Your task to perform on an android device: Open Android settings Image 0: 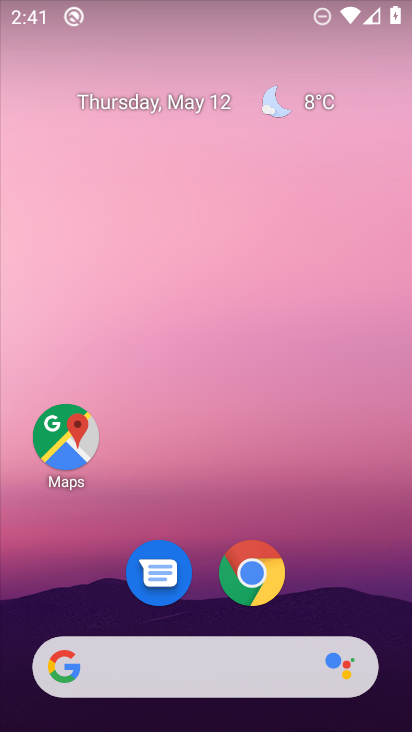
Step 0: drag from (366, 582) to (88, 17)
Your task to perform on an android device: Open Android settings Image 1: 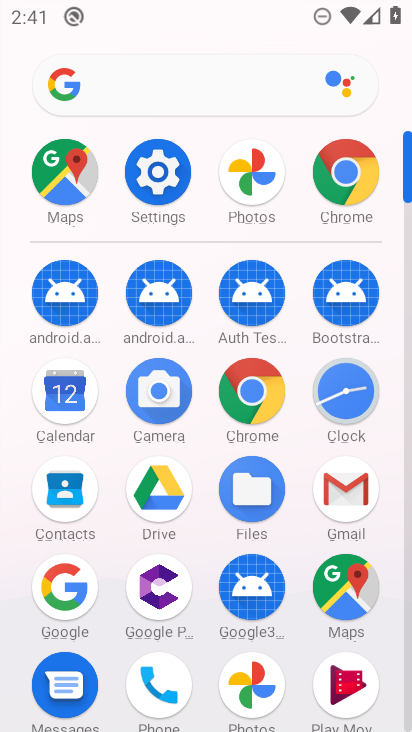
Step 1: click (344, 181)
Your task to perform on an android device: Open Android settings Image 2: 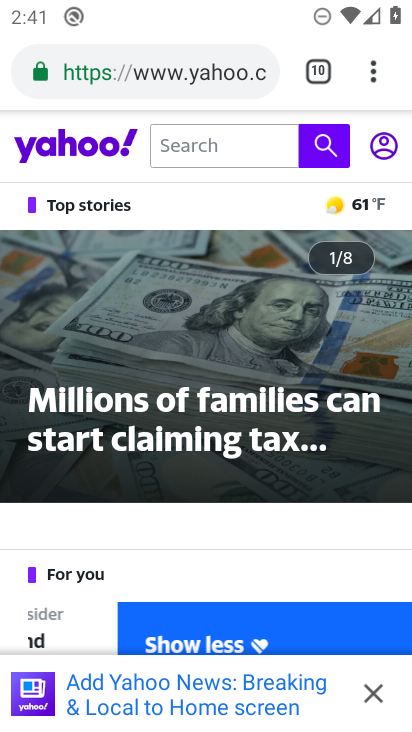
Step 2: press back button
Your task to perform on an android device: Open Android settings Image 3: 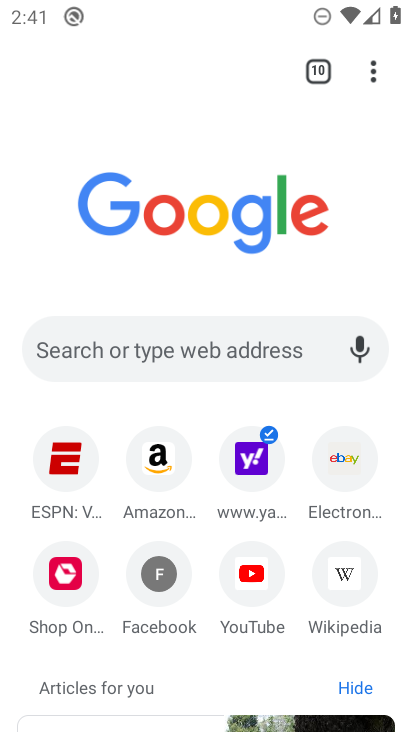
Step 3: press home button
Your task to perform on an android device: Open Android settings Image 4: 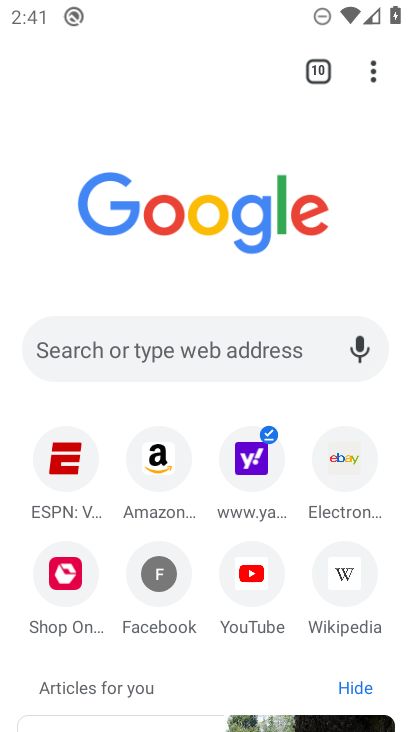
Step 4: press home button
Your task to perform on an android device: Open Android settings Image 5: 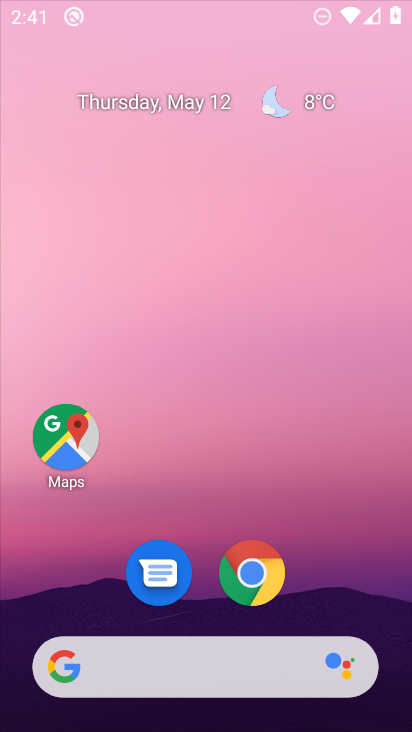
Step 5: press home button
Your task to perform on an android device: Open Android settings Image 6: 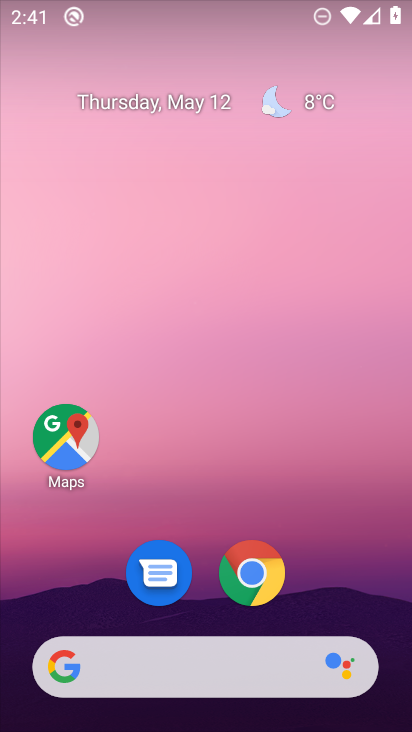
Step 6: drag from (331, 580) to (195, 114)
Your task to perform on an android device: Open Android settings Image 7: 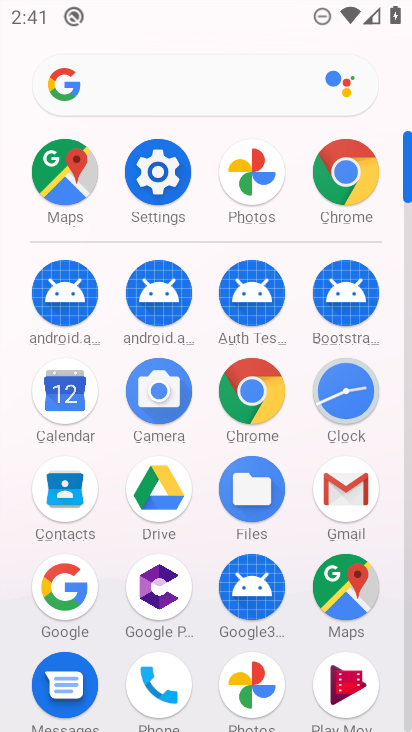
Step 7: click (150, 148)
Your task to perform on an android device: Open Android settings Image 8: 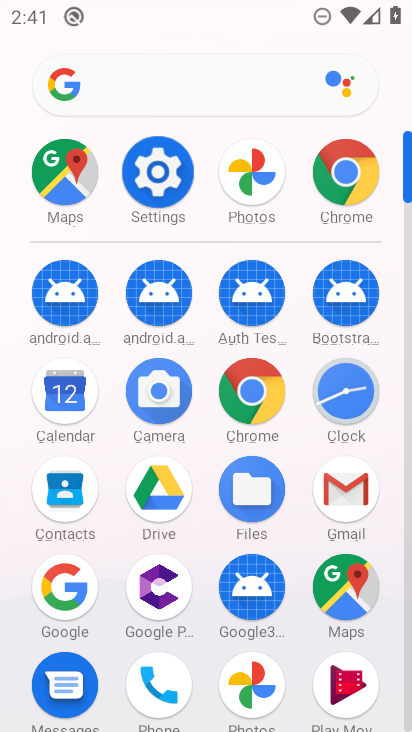
Step 8: click (154, 145)
Your task to perform on an android device: Open Android settings Image 9: 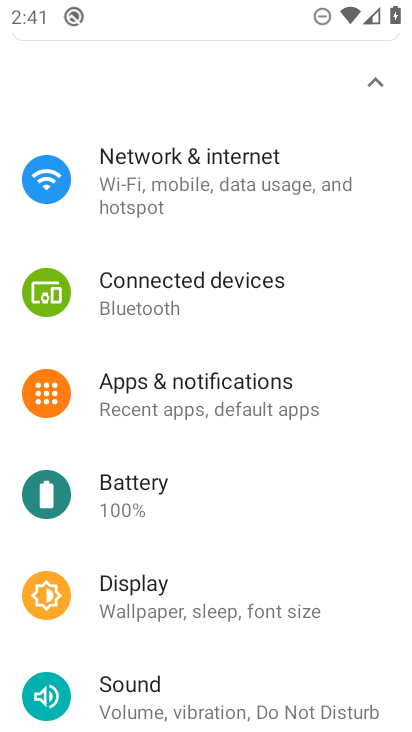
Step 9: drag from (204, 535) to (161, 0)
Your task to perform on an android device: Open Android settings Image 10: 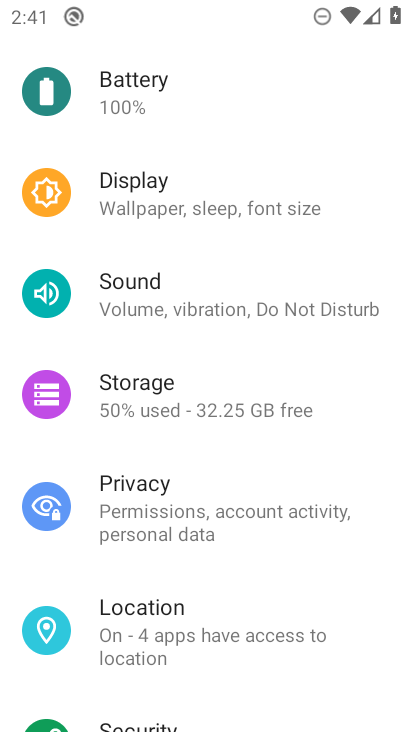
Step 10: drag from (198, 384) to (200, 80)
Your task to perform on an android device: Open Android settings Image 11: 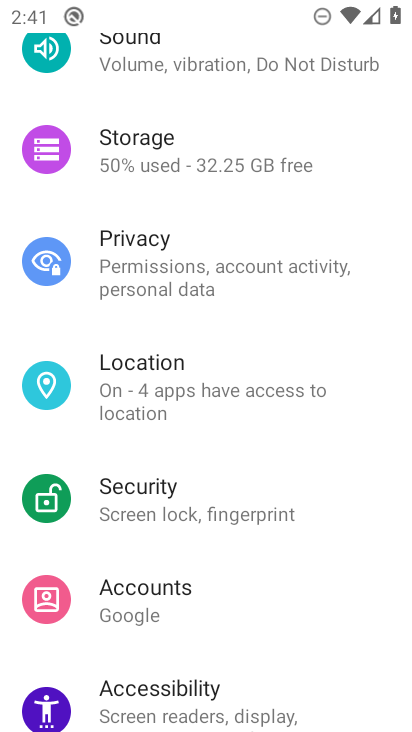
Step 11: drag from (251, 493) to (194, 136)
Your task to perform on an android device: Open Android settings Image 12: 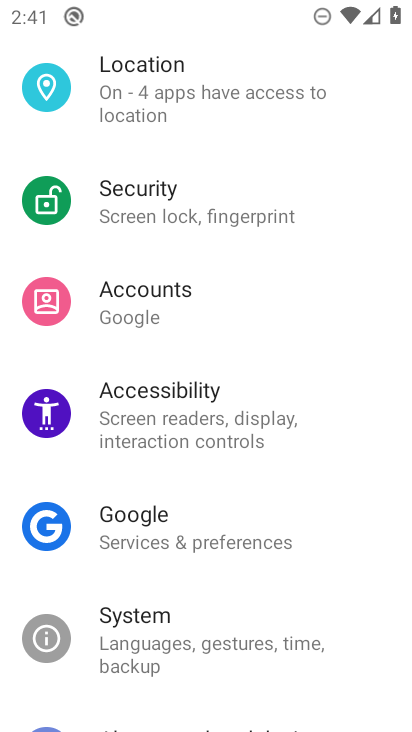
Step 12: drag from (146, 545) to (141, 80)
Your task to perform on an android device: Open Android settings Image 13: 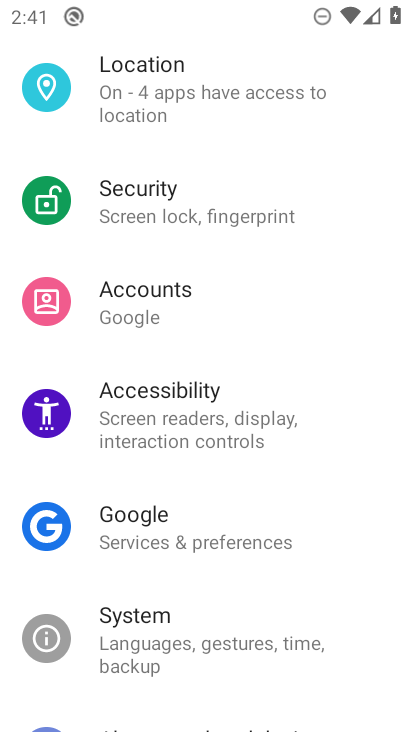
Step 13: drag from (197, 508) to (178, 104)
Your task to perform on an android device: Open Android settings Image 14: 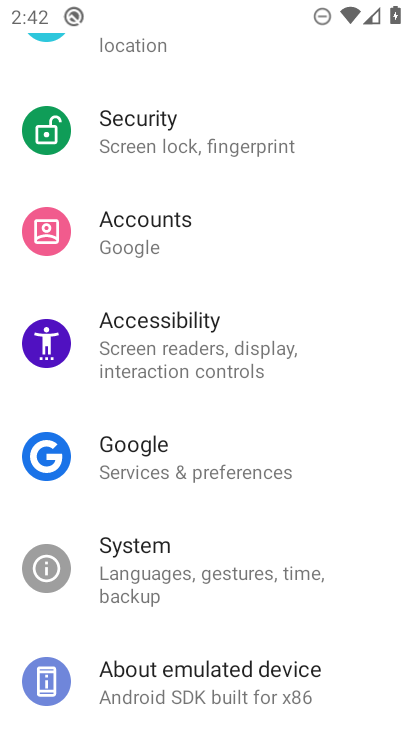
Step 14: drag from (243, 579) to (236, 52)
Your task to perform on an android device: Open Android settings Image 15: 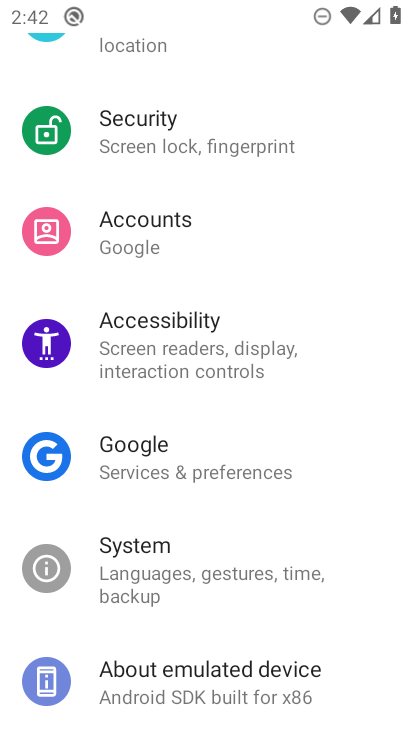
Step 15: click (180, 683)
Your task to perform on an android device: Open Android settings Image 16: 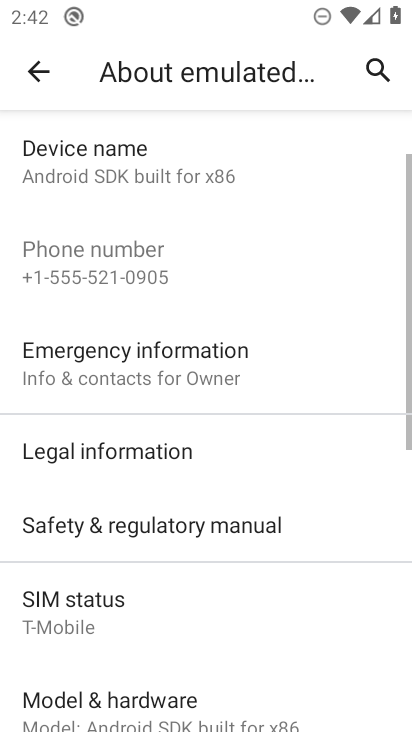
Step 16: task complete